Your task to perform on an android device: Open Google Maps and go to "Timeline" Image 0: 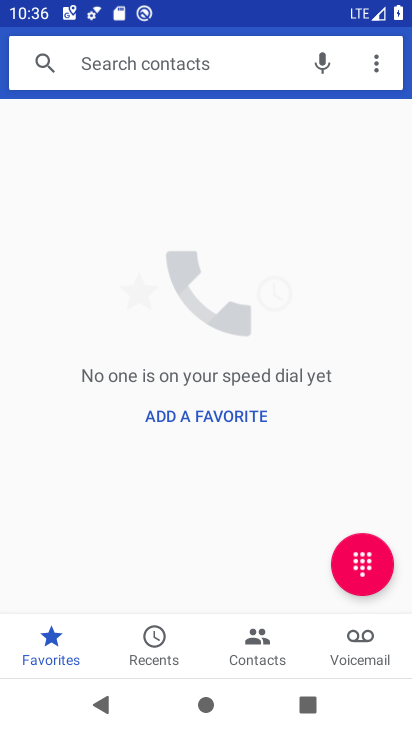
Step 0: press home button
Your task to perform on an android device: Open Google Maps and go to "Timeline" Image 1: 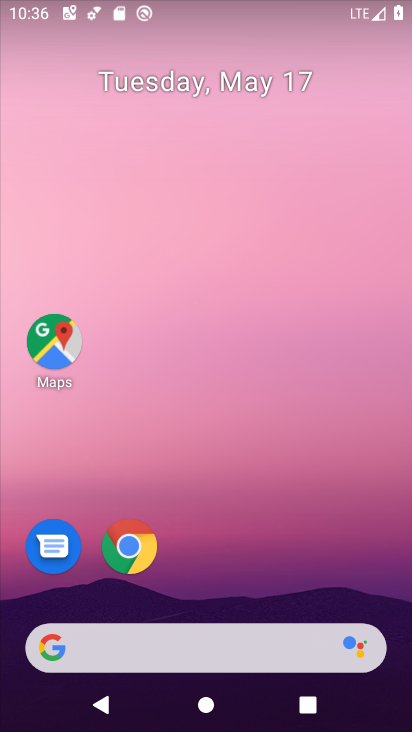
Step 1: click (62, 345)
Your task to perform on an android device: Open Google Maps and go to "Timeline" Image 2: 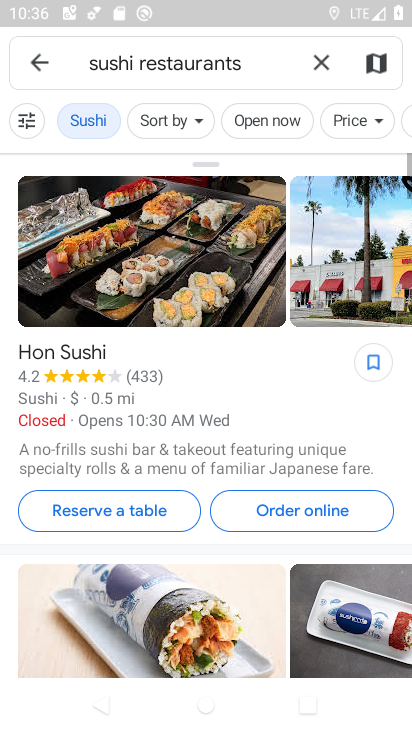
Step 2: click (37, 59)
Your task to perform on an android device: Open Google Maps and go to "Timeline" Image 3: 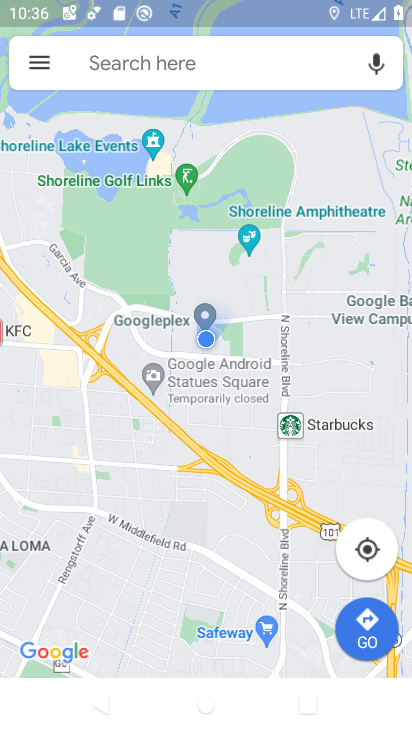
Step 3: click (41, 55)
Your task to perform on an android device: Open Google Maps and go to "Timeline" Image 4: 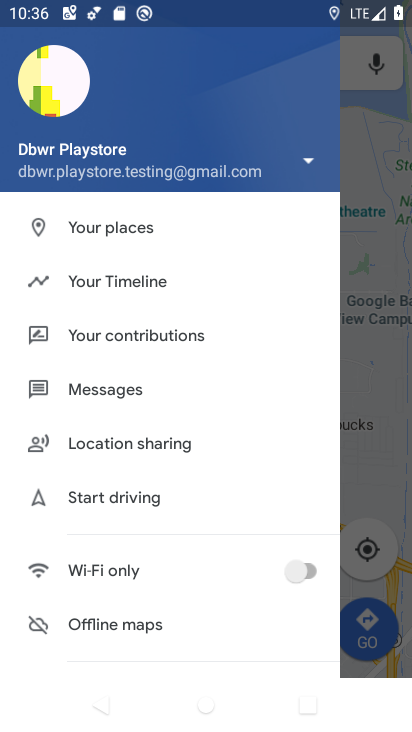
Step 4: click (130, 291)
Your task to perform on an android device: Open Google Maps and go to "Timeline" Image 5: 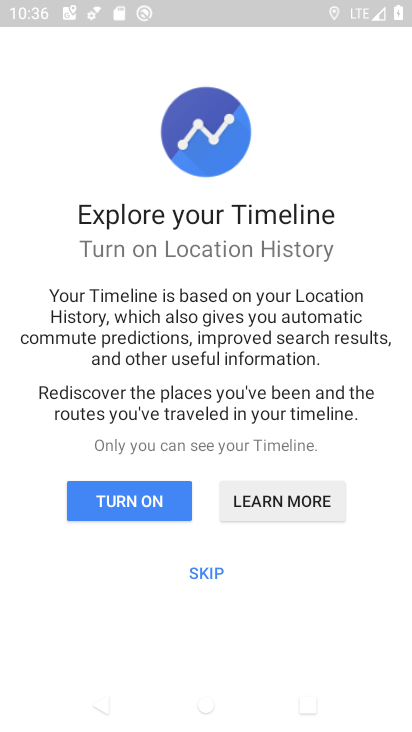
Step 5: click (220, 579)
Your task to perform on an android device: Open Google Maps and go to "Timeline" Image 6: 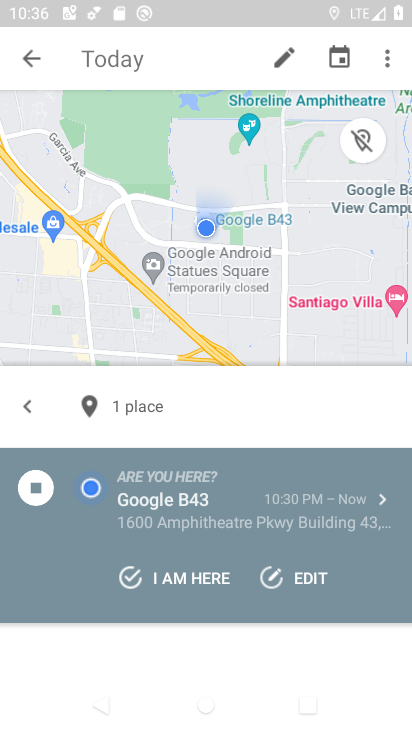
Step 6: task complete